Your task to perform on an android device: Open the calendar and show me this week's events? Image 0: 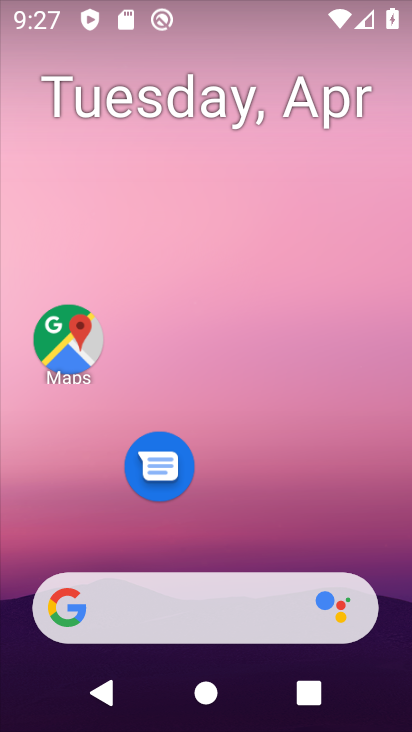
Step 0: drag from (312, 518) to (219, 97)
Your task to perform on an android device: Open the calendar and show me this week's events? Image 1: 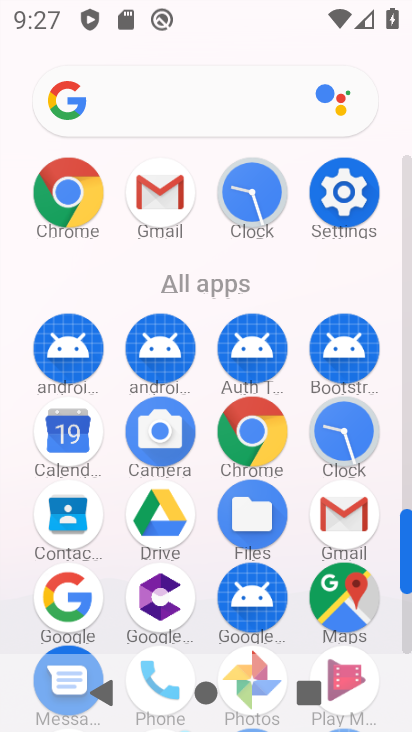
Step 1: click (72, 444)
Your task to perform on an android device: Open the calendar and show me this week's events? Image 2: 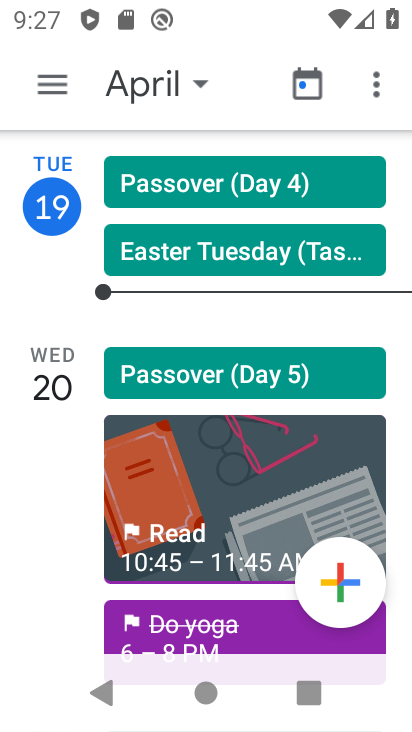
Step 2: click (35, 86)
Your task to perform on an android device: Open the calendar and show me this week's events? Image 3: 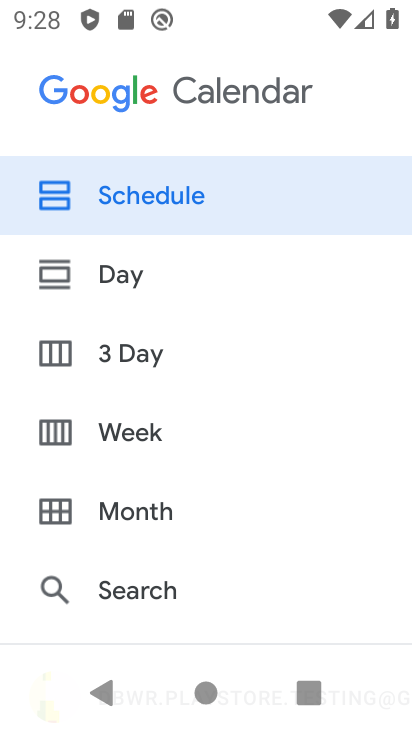
Step 3: click (186, 434)
Your task to perform on an android device: Open the calendar and show me this week's events? Image 4: 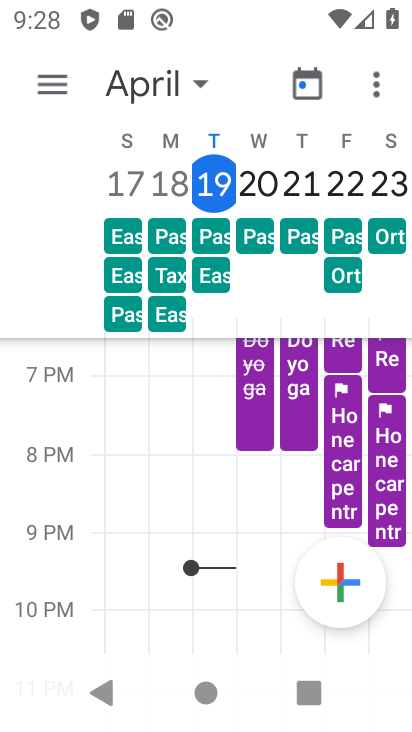
Step 4: task complete